Your task to perform on an android device: Open Google Chrome and open the bookmarks view Image 0: 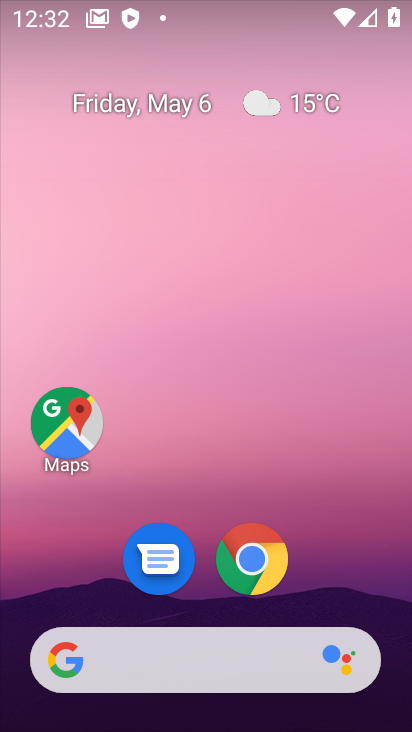
Step 0: click (268, 562)
Your task to perform on an android device: Open Google Chrome and open the bookmarks view Image 1: 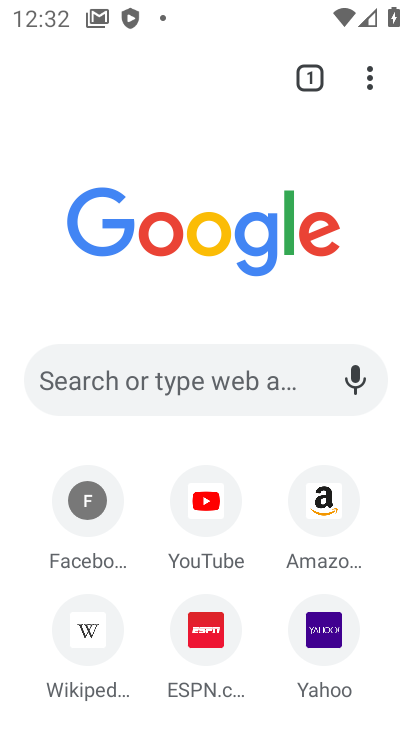
Step 1: click (366, 82)
Your task to perform on an android device: Open Google Chrome and open the bookmarks view Image 2: 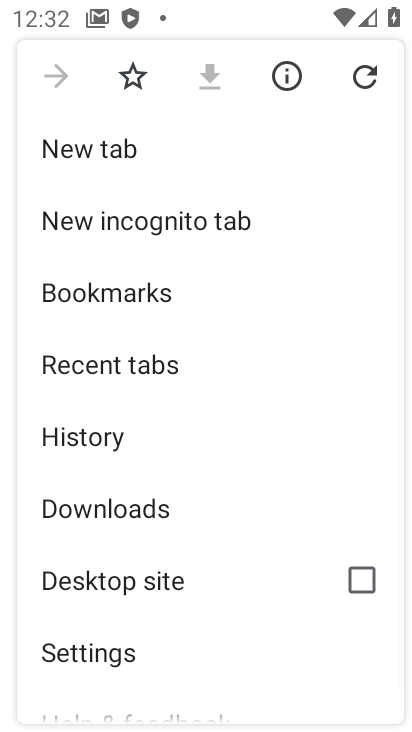
Step 2: click (131, 284)
Your task to perform on an android device: Open Google Chrome and open the bookmarks view Image 3: 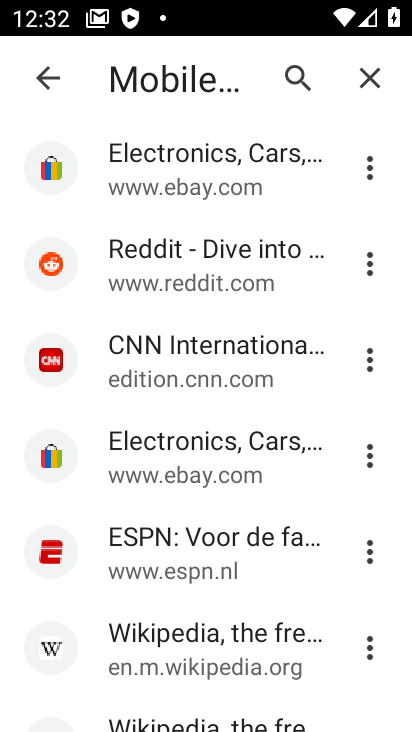
Step 3: task complete